Your task to perform on an android device: Go to Wikipedia Image 0: 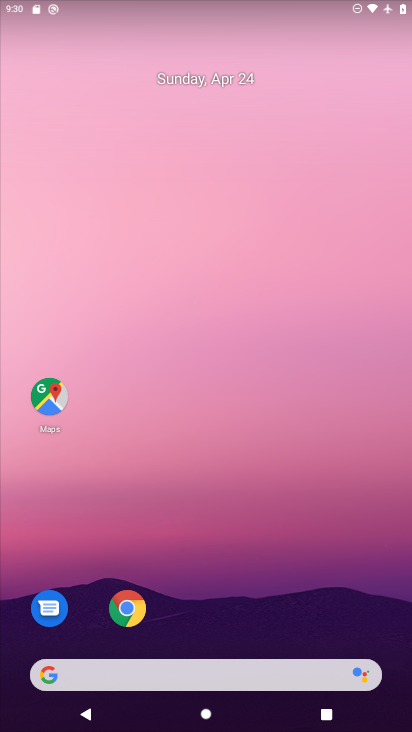
Step 0: click (180, 666)
Your task to perform on an android device: Go to Wikipedia Image 1: 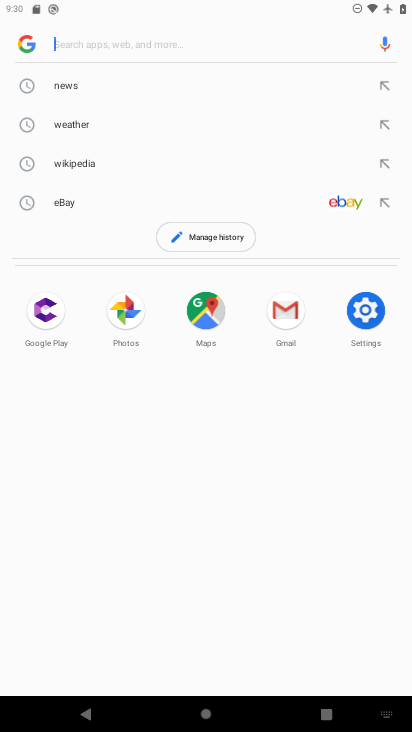
Step 1: type "Wikipedia"
Your task to perform on an android device: Go to Wikipedia Image 2: 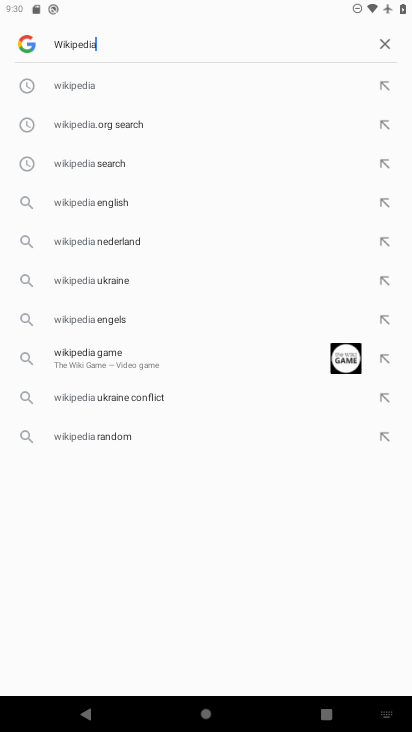
Step 2: click (89, 92)
Your task to perform on an android device: Go to Wikipedia Image 3: 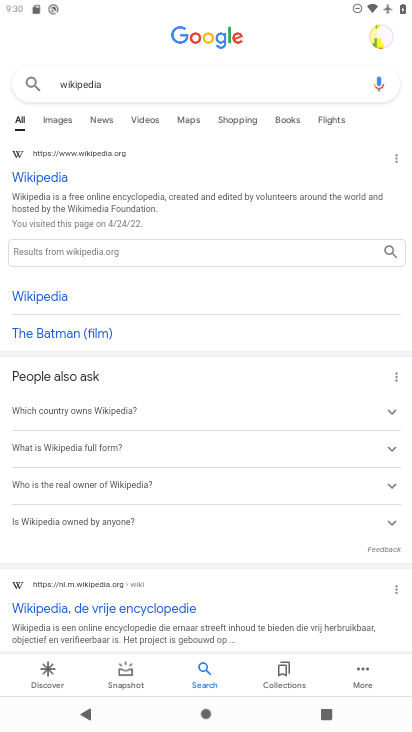
Step 3: click (51, 177)
Your task to perform on an android device: Go to Wikipedia Image 4: 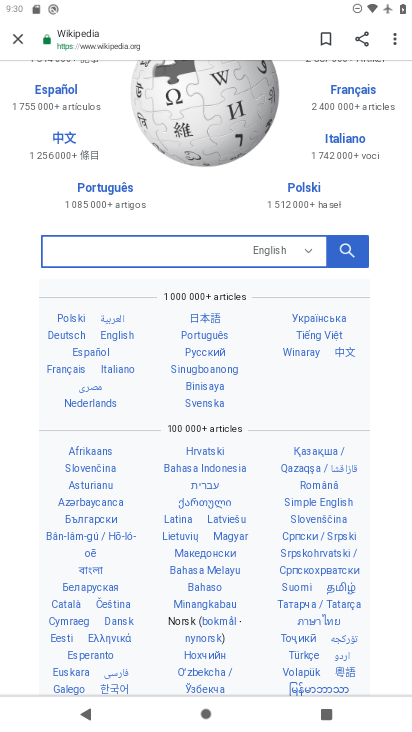
Step 4: task complete